Your task to perform on an android device: check out phone information Image 0: 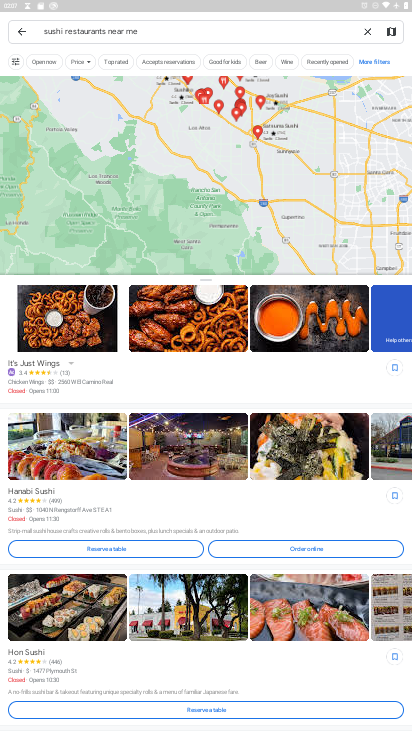
Step 0: press home button
Your task to perform on an android device: check out phone information Image 1: 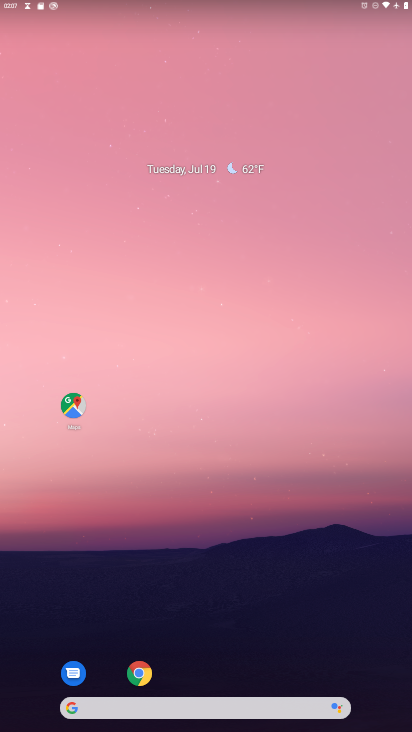
Step 1: drag from (225, 647) to (247, 231)
Your task to perform on an android device: check out phone information Image 2: 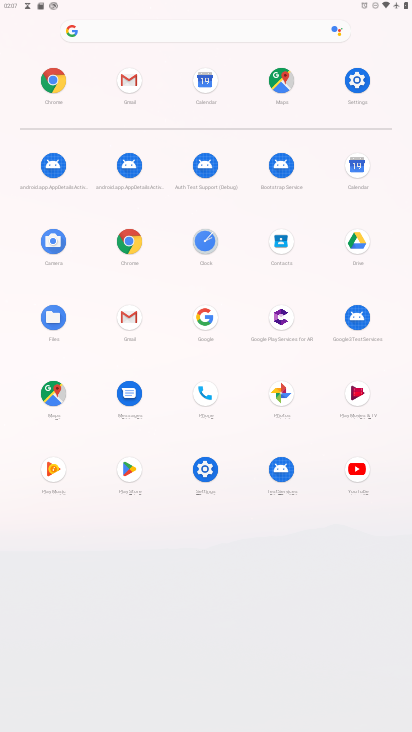
Step 2: click (357, 75)
Your task to perform on an android device: check out phone information Image 3: 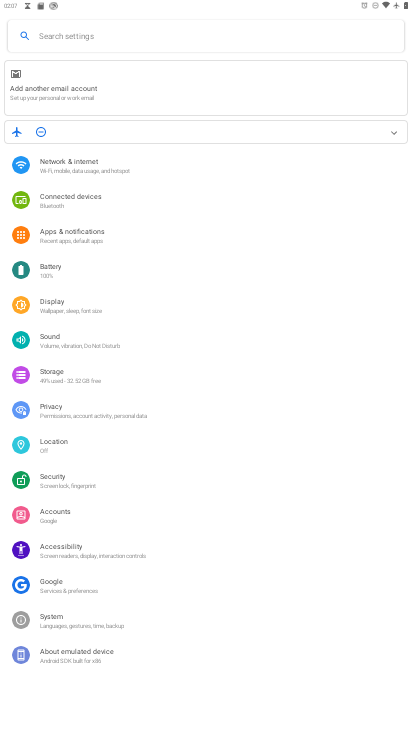
Step 3: click (100, 658)
Your task to perform on an android device: check out phone information Image 4: 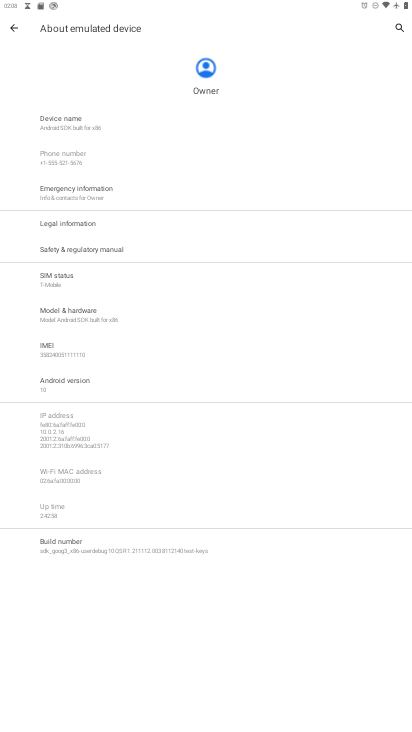
Step 4: task complete